Your task to perform on an android device: change the clock display to show seconds Image 0: 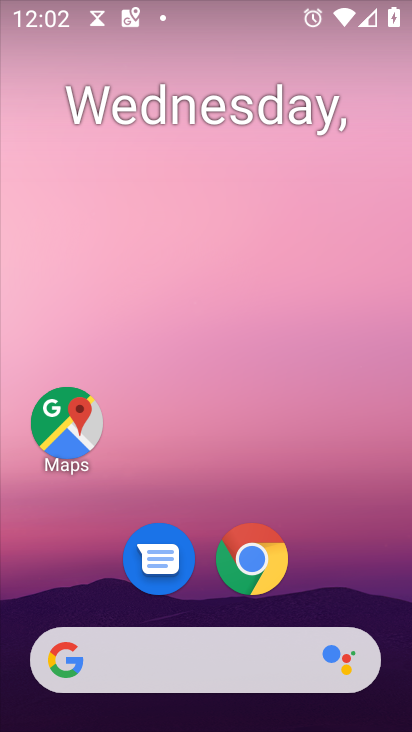
Step 0: drag from (369, 523) to (339, 29)
Your task to perform on an android device: change the clock display to show seconds Image 1: 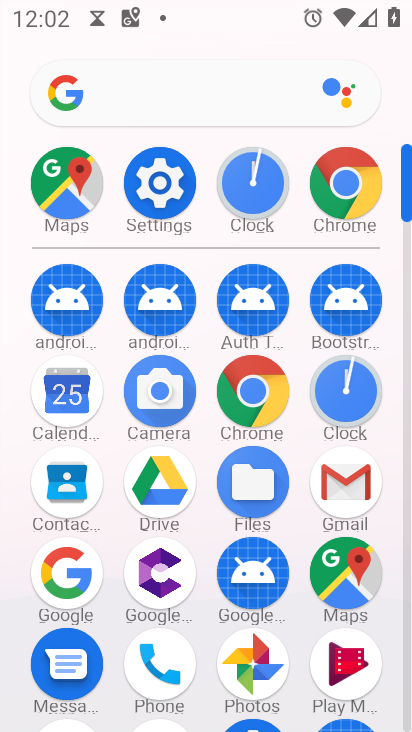
Step 1: click (350, 403)
Your task to perform on an android device: change the clock display to show seconds Image 2: 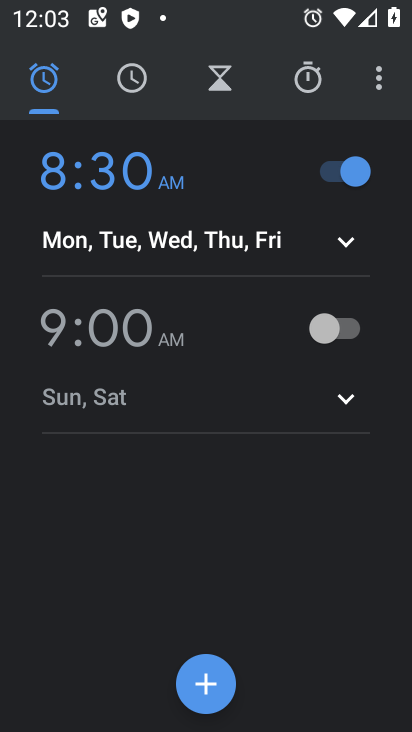
Step 2: click (382, 69)
Your task to perform on an android device: change the clock display to show seconds Image 3: 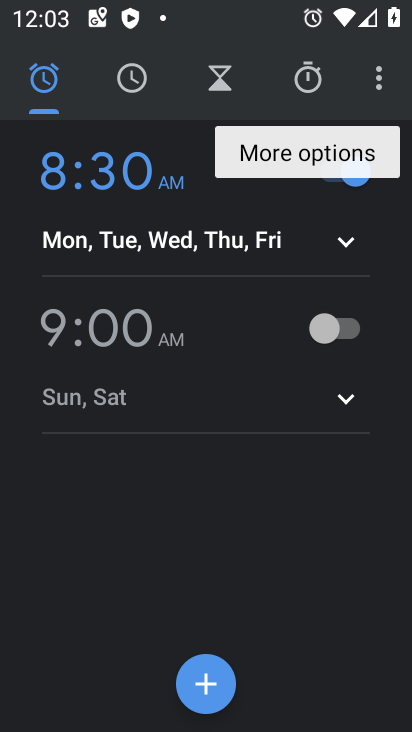
Step 3: click (382, 68)
Your task to perform on an android device: change the clock display to show seconds Image 4: 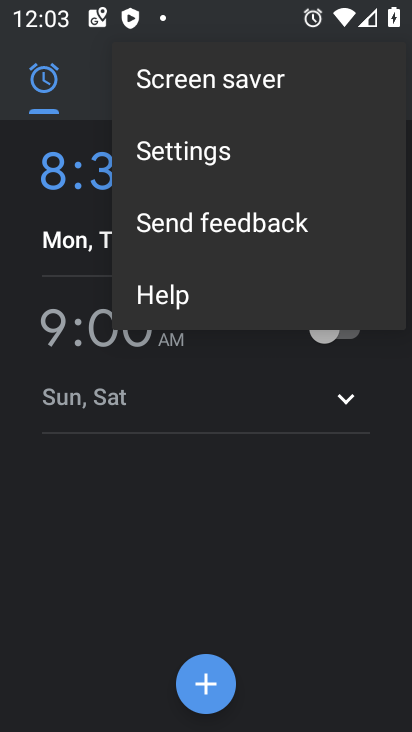
Step 4: click (212, 153)
Your task to perform on an android device: change the clock display to show seconds Image 5: 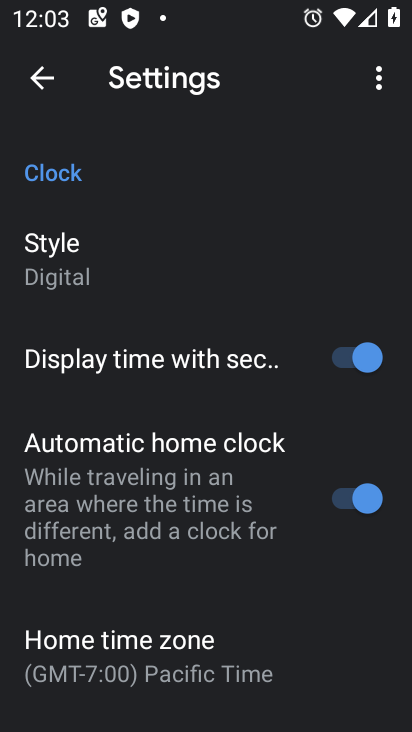
Step 5: task complete